Your task to perform on an android device: Is it going to rain tomorrow? Image 0: 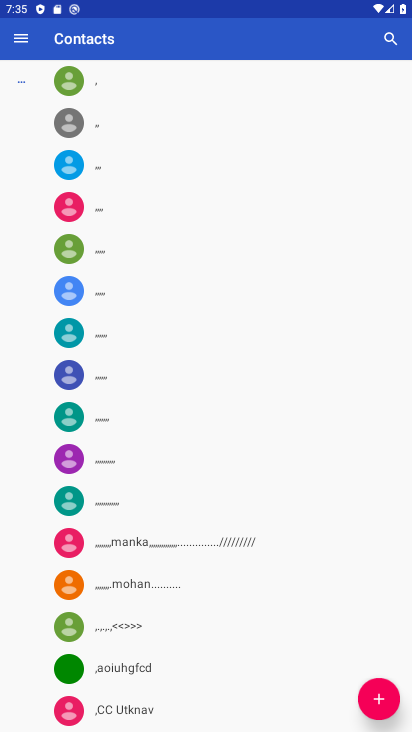
Step 0: press back button
Your task to perform on an android device: Is it going to rain tomorrow? Image 1: 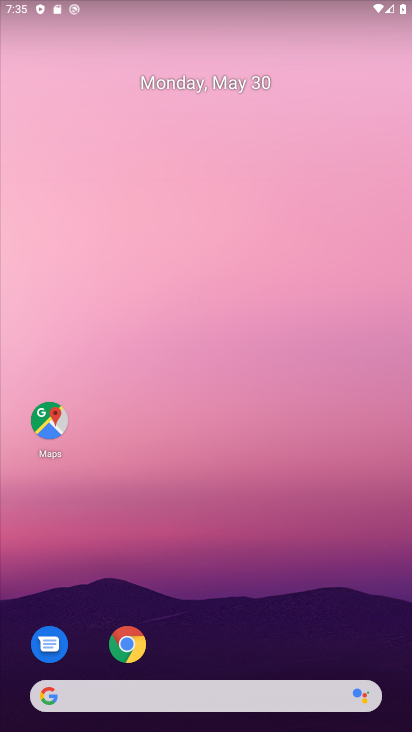
Step 1: drag from (219, 611) to (185, 148)
Your task to perform on an android device: Is it going to rain tomorrow? Image 2: 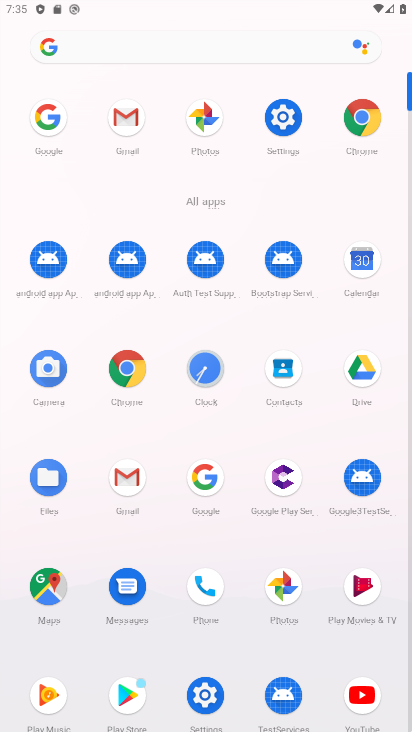
Step 2: click (202, 476)
Your task to perform on an android device: Is it going to rain tomorrow? Image 3: 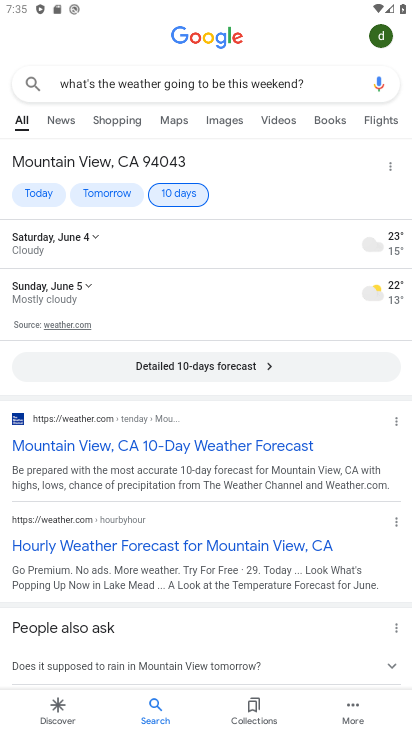
Step 3: click (324, 95)
Your task to perform on an android device: Is it going to rain tomorrow? Image 4: 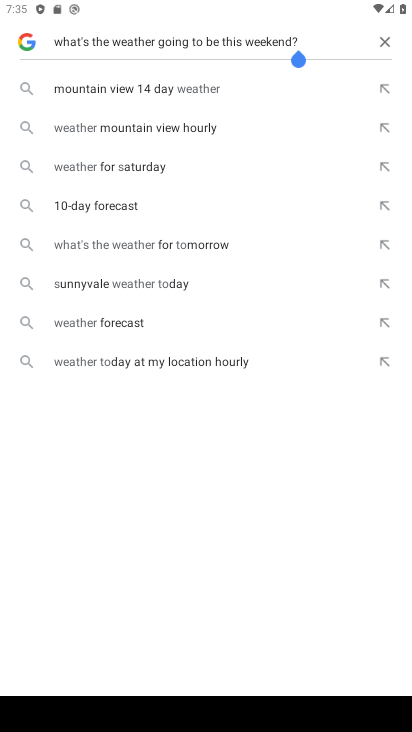
Step 4: click (382, 41)
Your task to perform on an android device: Is it going to rain tomorrow? Image 5: 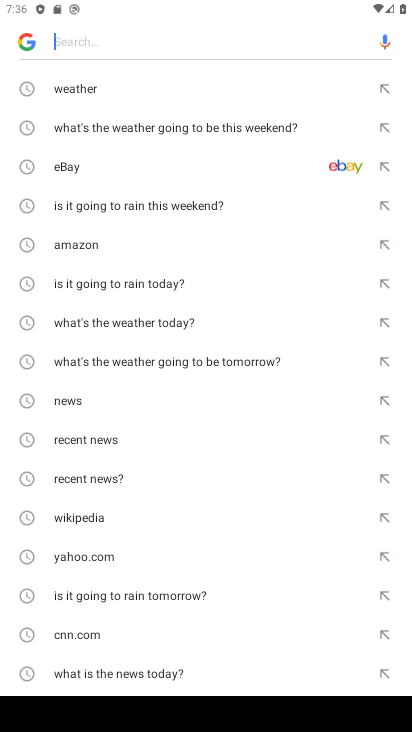
Step 5: type "Is it going to rain tomorrow"
Your task to perform on an android device: Is it going to rain tomorrow? Image 6: 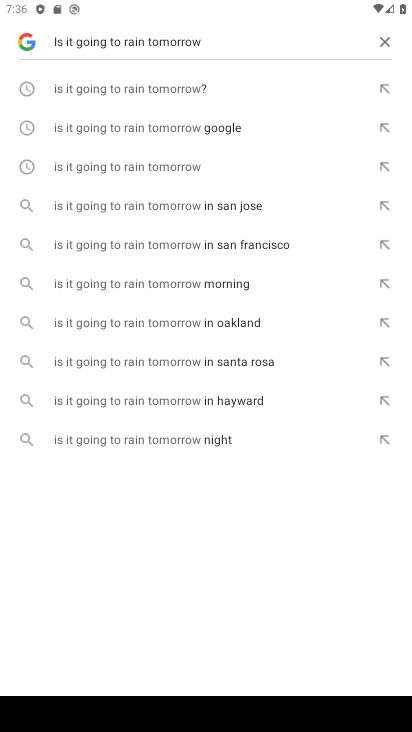
Step 6: click (195, 93)
Your task to perform on an android device: Is it going to rain tomorrow? Image 7: 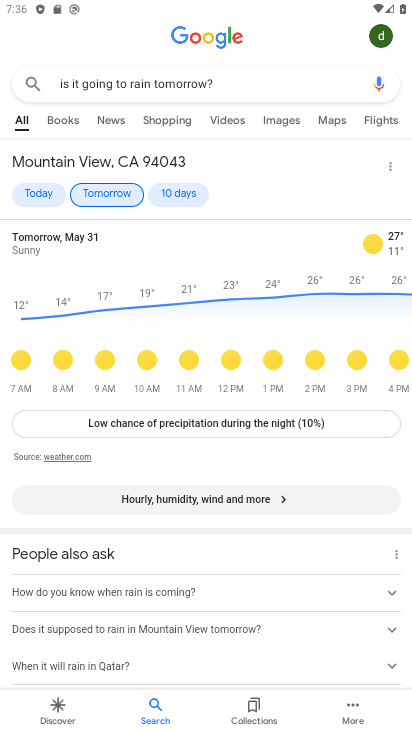
Step 7: task complete